Your task to perform on an android device: move an email to a new category in the gmail app Image 0: 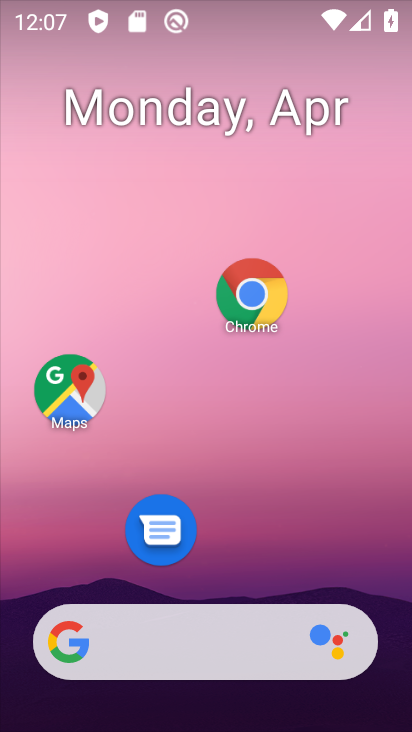
Step 0: drag from (249, 539) to (373, 191)
Your task to perform on an android device: move an email to a new category in the gmail app Image 1: 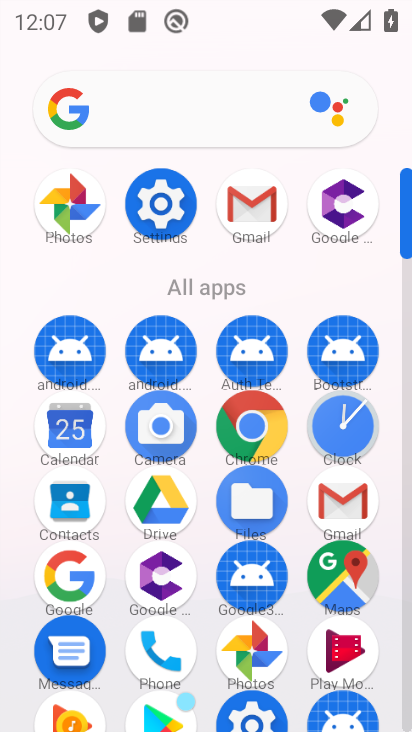
Step 1: click (340, 511)
Your task to perform on an android device: move an email to a new category in the gmail app Image 2: 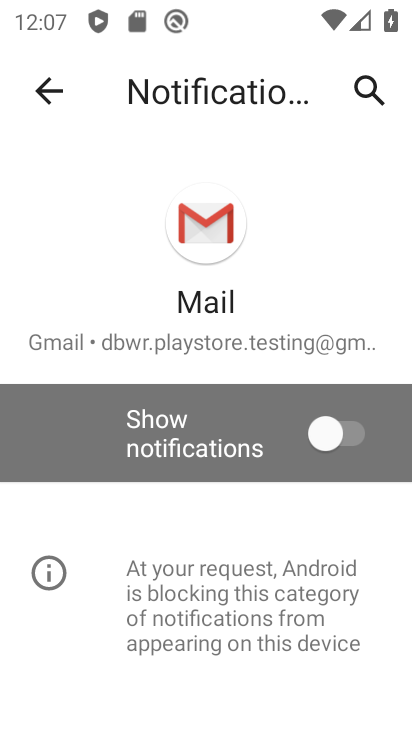
Step 2: click (62, 92)
Your task to perform on an android device: move an email to a new category in the gmail app Image 3: 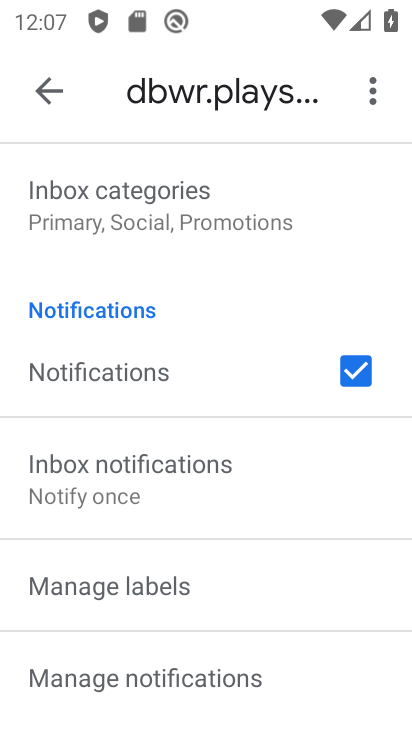
Step 3: click (52, 88)
Your task to perform on an android device: move an email to a new category in the gmail app Image 4: 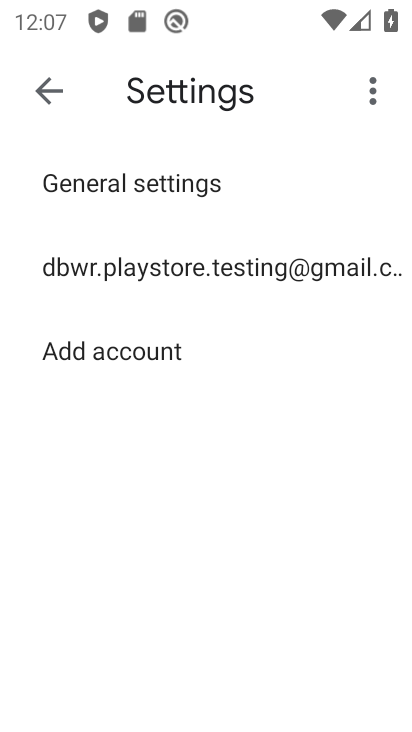
Step 4: click (214, 279)
Your task to perform on an android device: move an email to a new category in the gmail app Image 5: 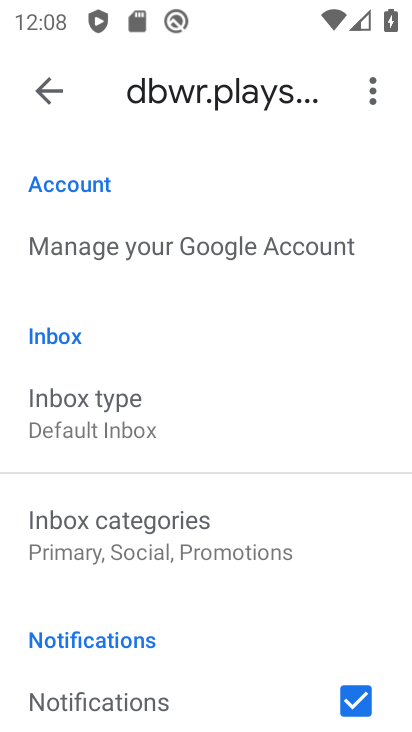
Step 5: click (50, 99)
Your task to perform on an android device: move an email to a new category in the gmail app Image 6: 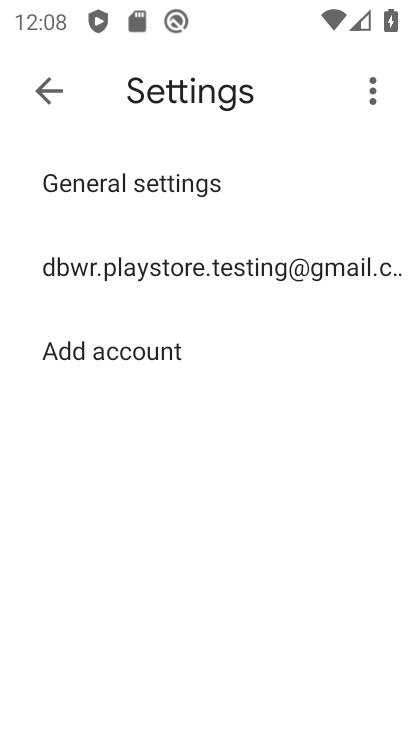
Step 6: click (182, 281)
Your task to perform on an android device: move an email to a new category in the gmail app Image 7: 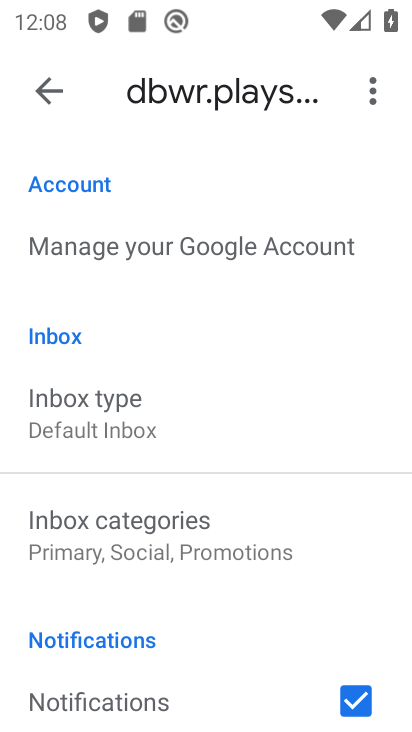
Step 7: click (66, 100)
Your task to perform on an android device: move an email to a new category in the gmail app Image 8: 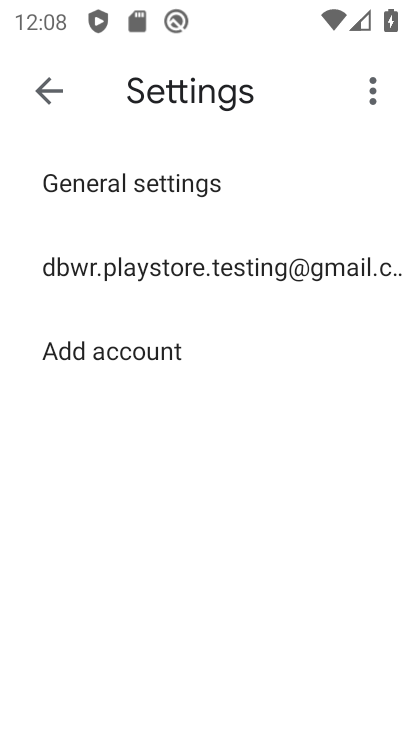
Step 8: click (65, 99)
Your task to perform on an android device: move an email to a new category in the gmail app Image 9: 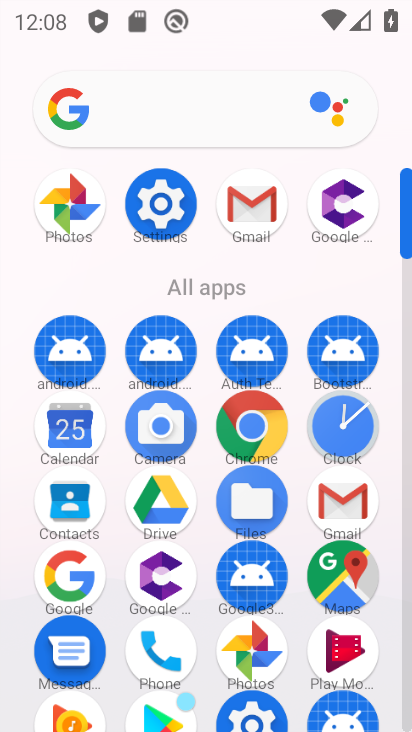
Step 9: click (261, 202)
Your task to perform on an android device: move an email to a new category in the gmail app Image 10: 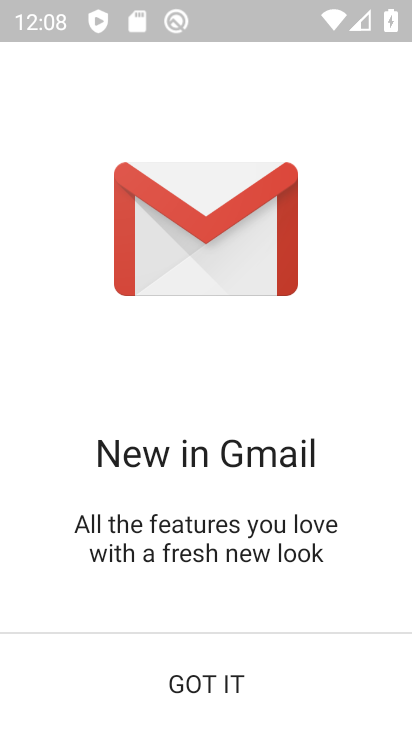
Step 10: click (253, 689)
Your task to perform on an android device: move an email to a new category in the gmail app Image 11: 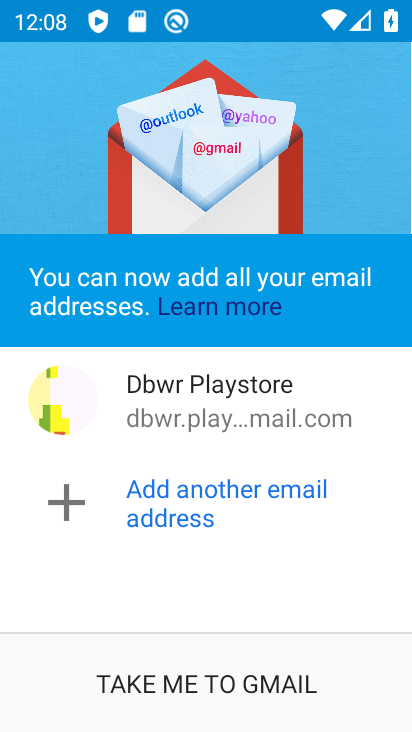
Step 11: click (222, 674)
Your task to perform on an android device: move an email to a new category in the gmail app Image 12: 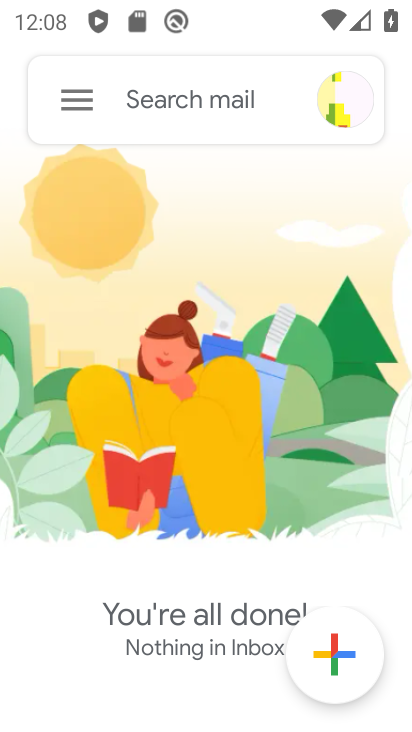
Step 12: click (83, 98)
Your task to perform on an android device: move an email to a new category in the gmail app Image 13: 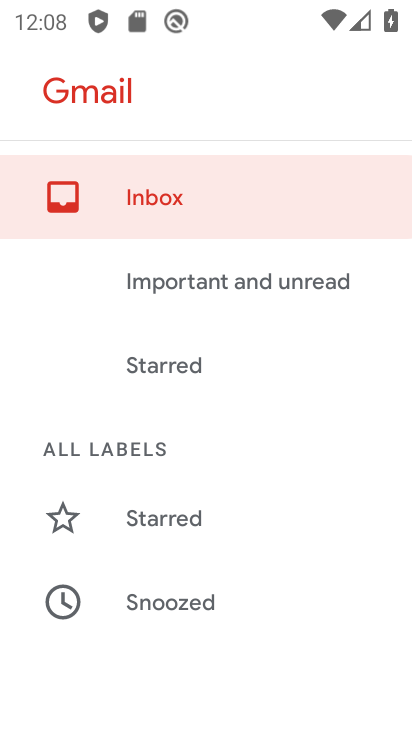
Step 13: drag from (210, 577) to (334, 226)
Your task to perform on an android device: move an email to a new category in the gmail app Image 14: 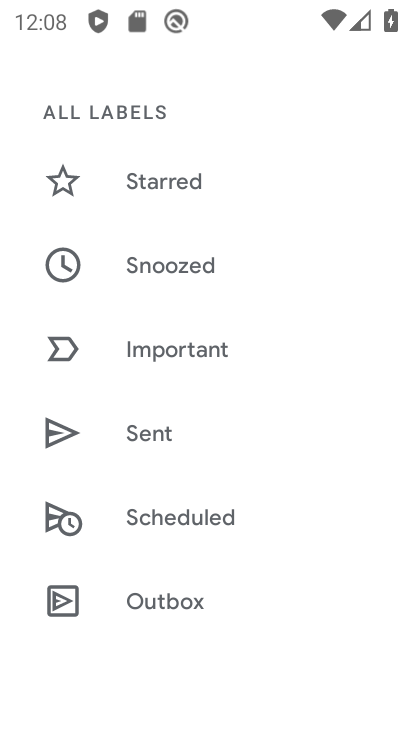
Step 14: drag from (238, 587) to (320, 265)
Your task to perform on an android device: move an email to a new category in the gmail app Image 15: 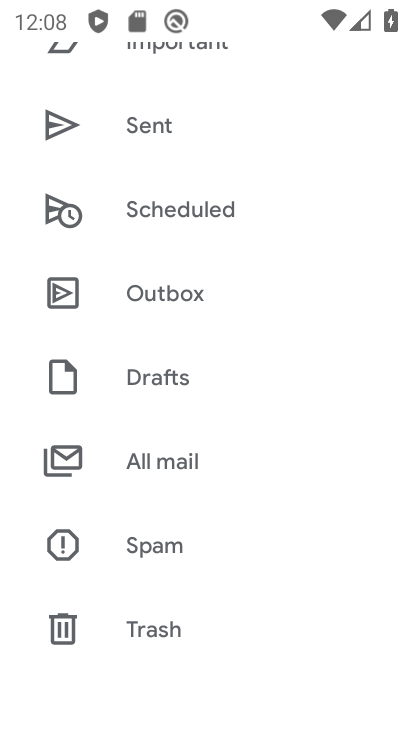
Step 15: click (180, 457)
Your task to perform on an android device: move an email to a new category in the gmail app Image 16: 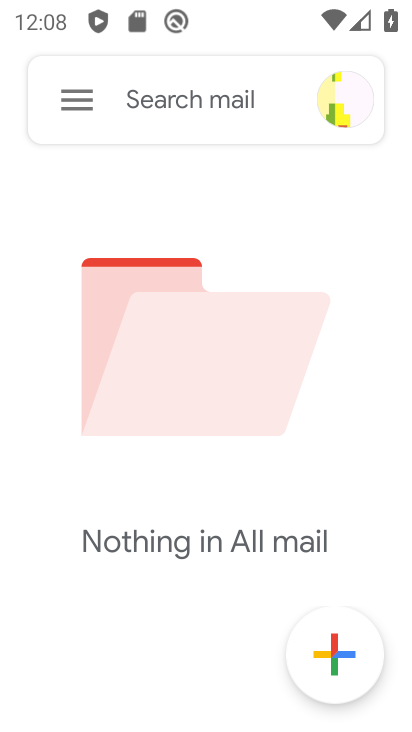
Step 16: task complete